Your task to perform on an android device: What's the latest video from Game Informer? Image 0: 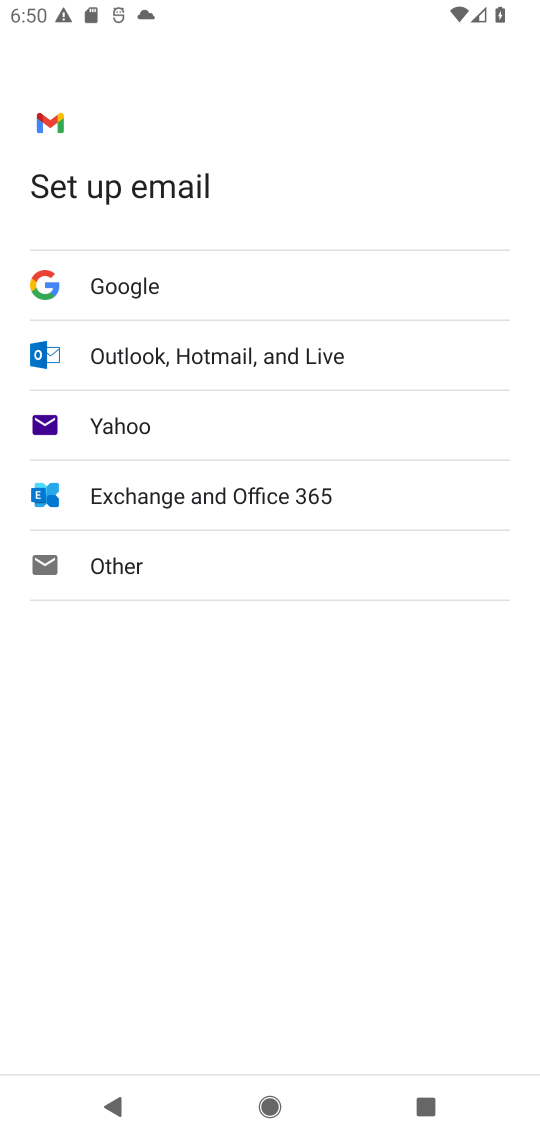
Step 0: press home button
Your task to perform on an android device: What's the latest video from Game Informer? Image 1: 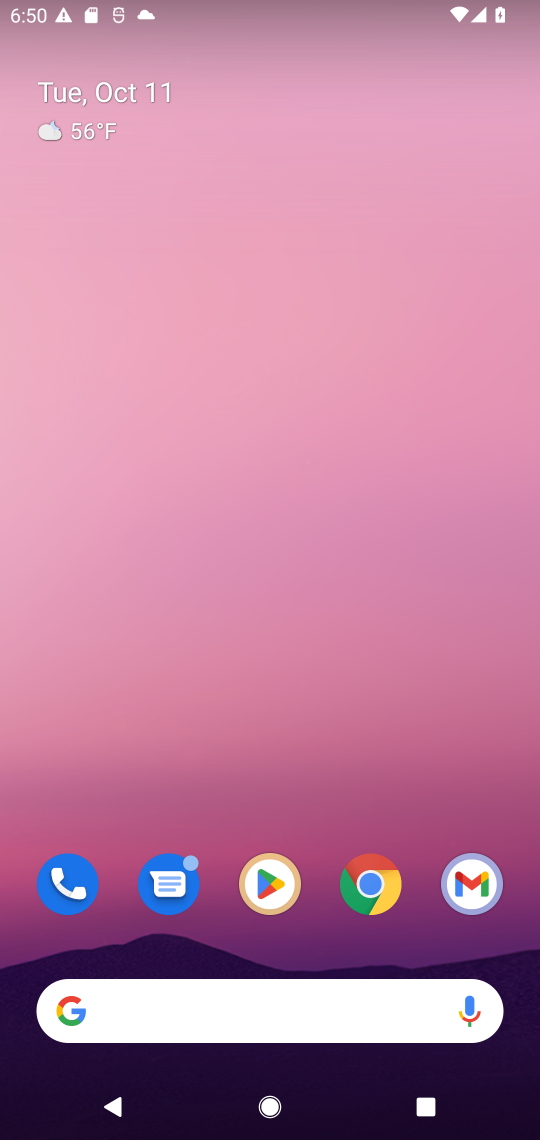
Step 1: drag from (302, 969) to (293, 69)
Your task to perform on an android device: What's the latest video from Game Informer? Image 2: 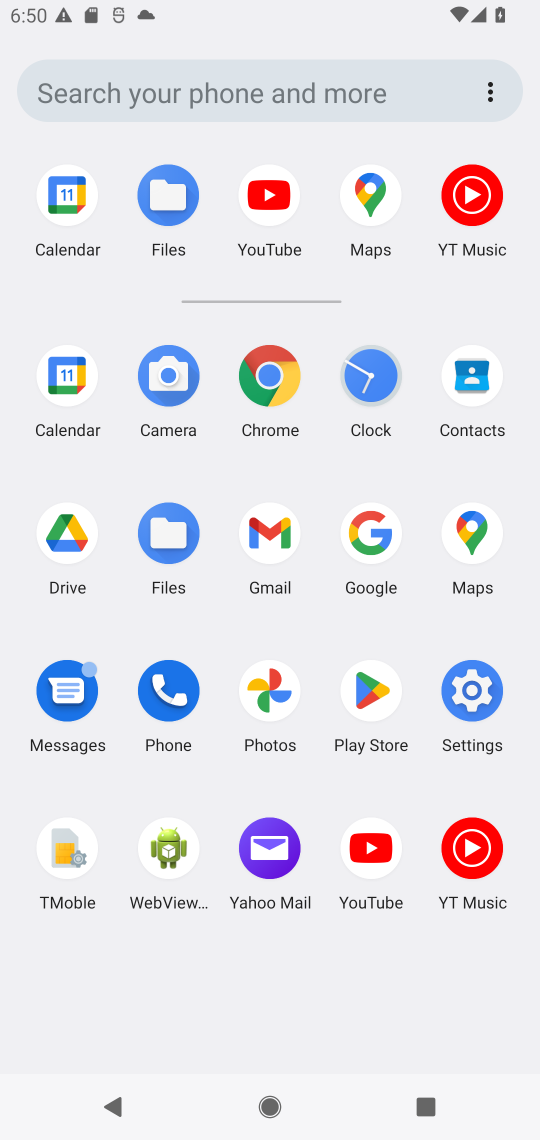
Step 2: click (266, 374)
Your task to perform on an android device: What's the latest video from Game Informer? Image 3: 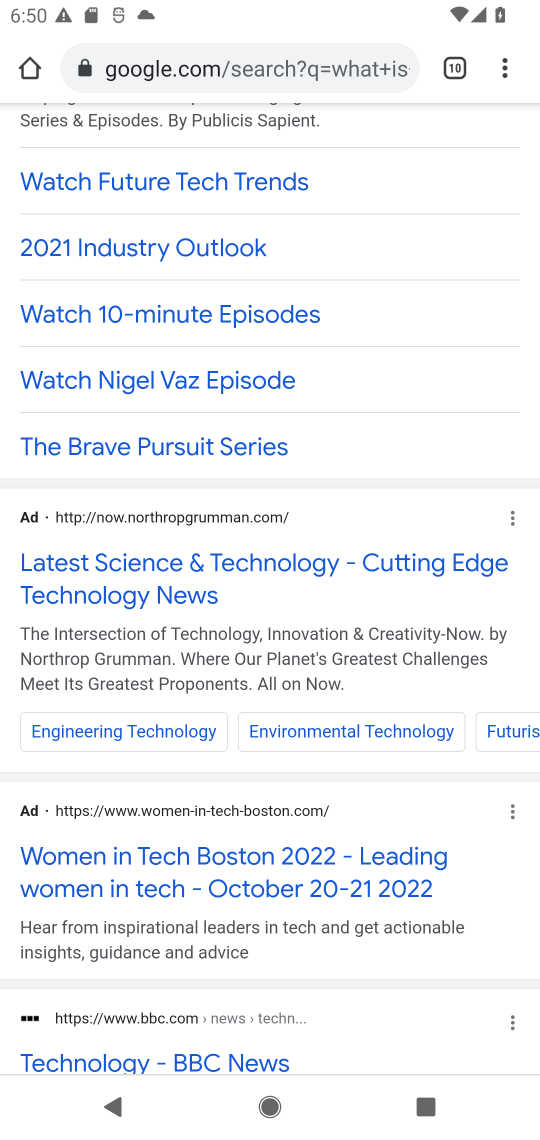
Step 3: drag from (338, 245) to (320, 775)
Your task to perform on an android device: What's the latest video from Game Informer? Image 4: 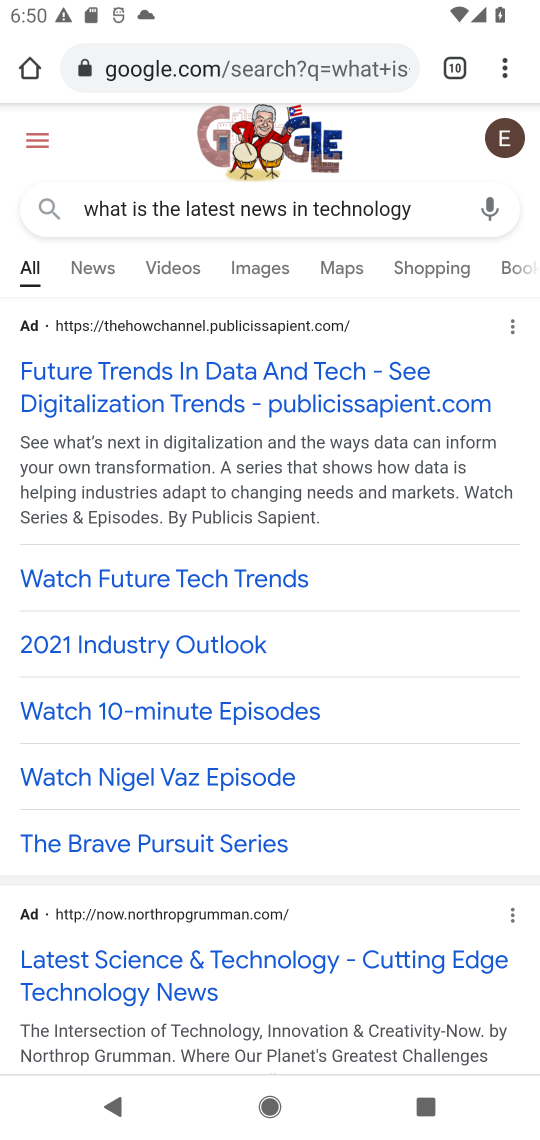
Step 4: click (416, 208)
Your task to perform on an android device: What's the latest video from Game Informer? Image 5: 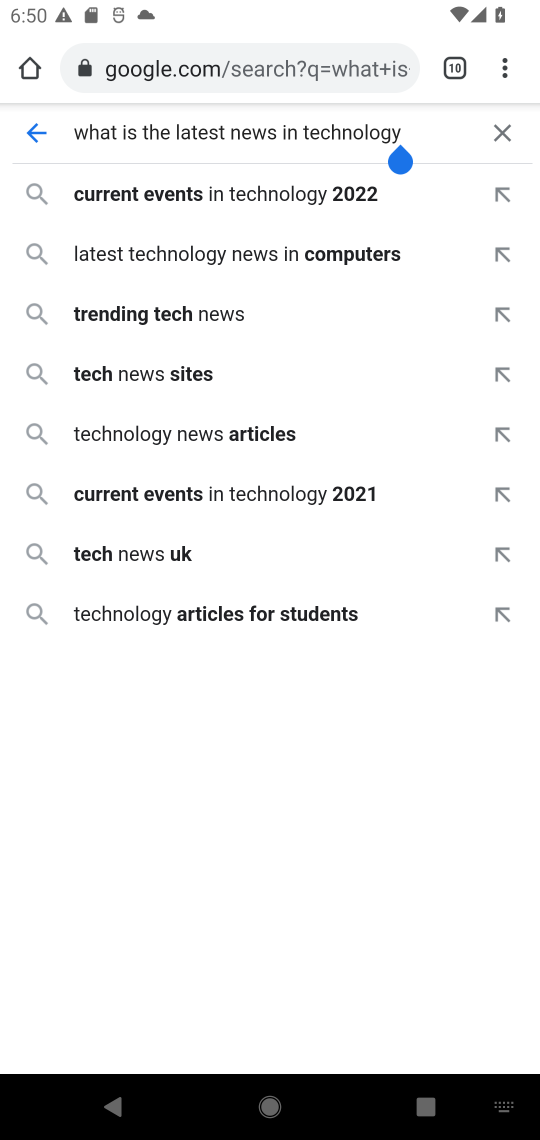
Step 5: click (504, 122)
Your task to perform on an android device: What's the latest video from Game Informer? Image 6: 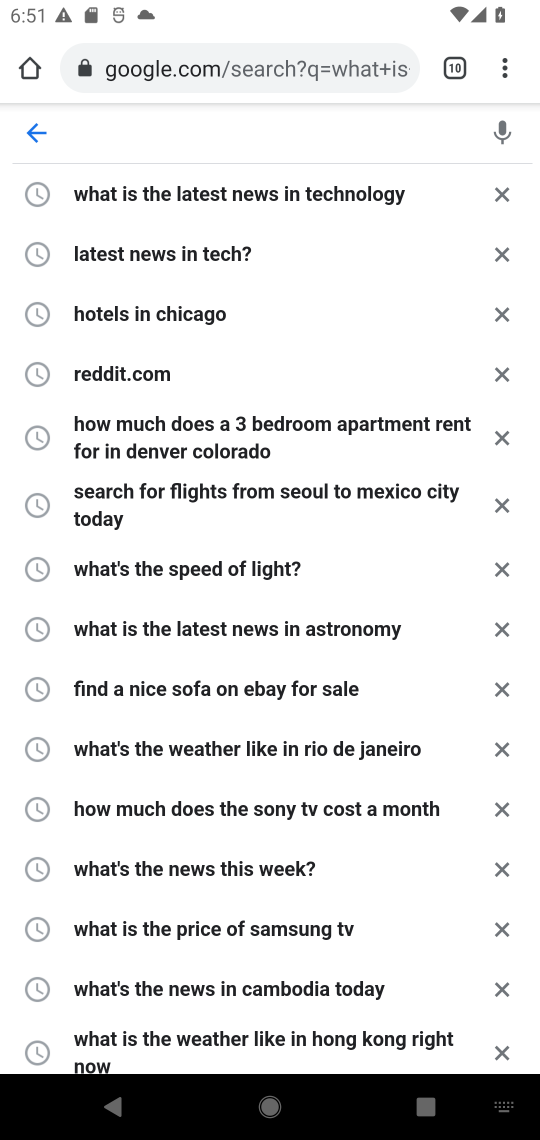
Step 6: type "What's the latest video from Game Informer?"
Your task to perform on an android device: What's the latest video from Game Informer? Image 7: 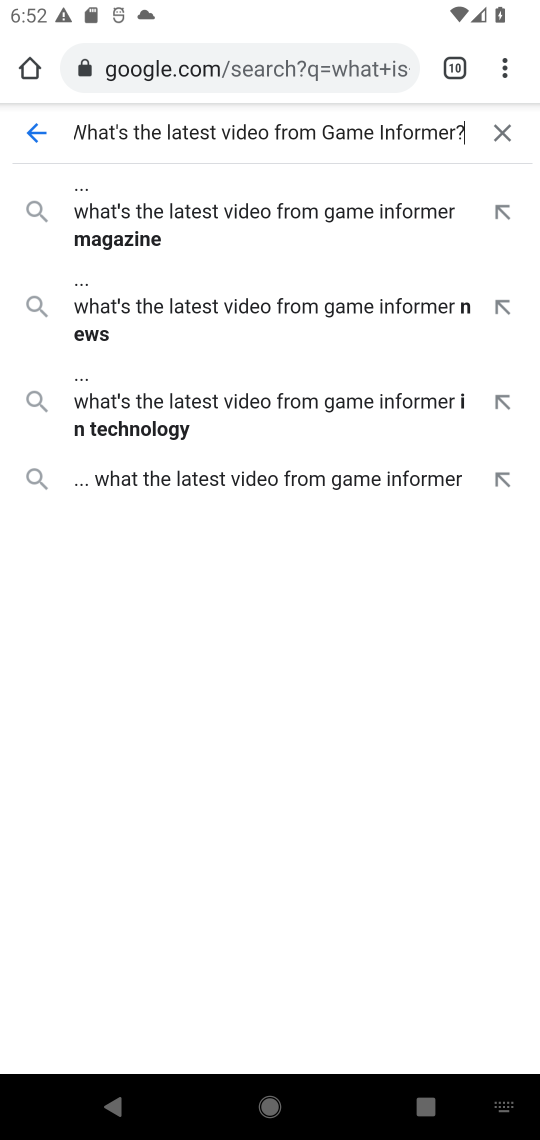
Step 7: click (292, 297)
Your task to perform on an android device: What's the latest video from Game Informer? Image 8: 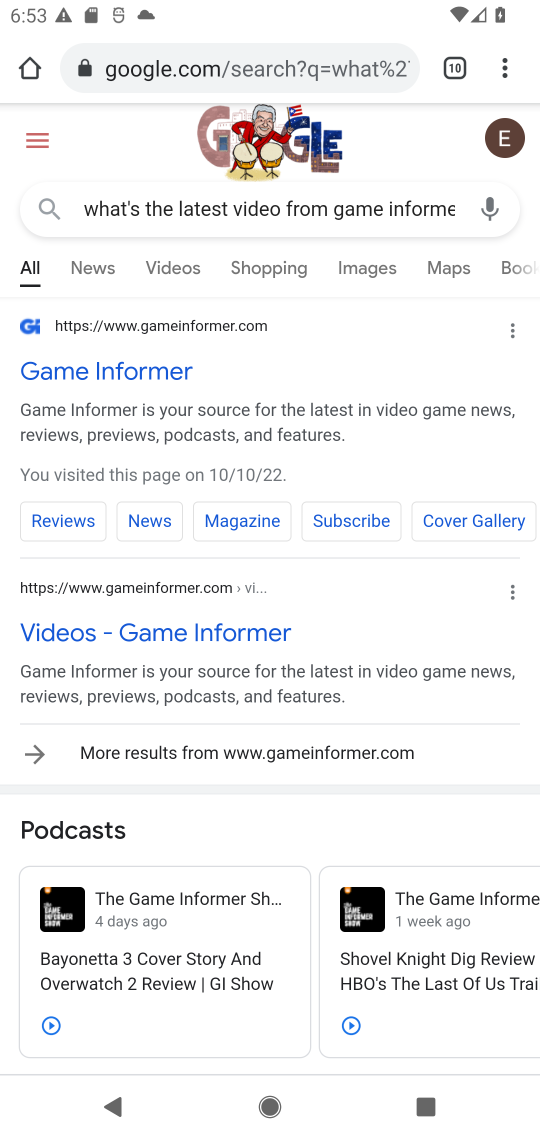
Step 8: task complete